Your task to perform on an android device: see tabs open on other devices in the chrome app Image 0: 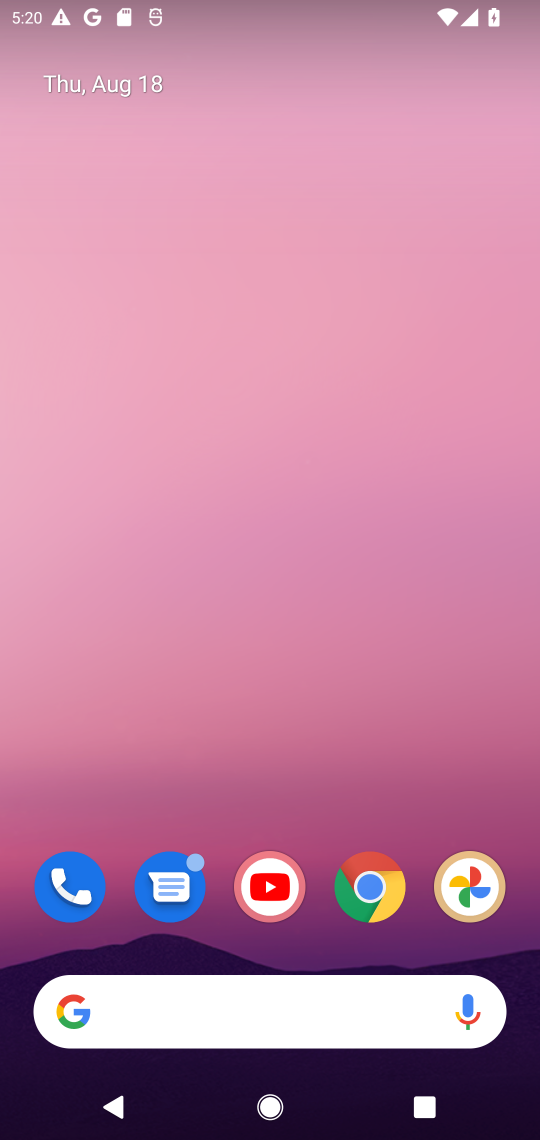
Step 0: drag from (330, 783) to (340, 130)
Your task to perform on an android device: see tabs open on other devices in the chrome app Image 1: 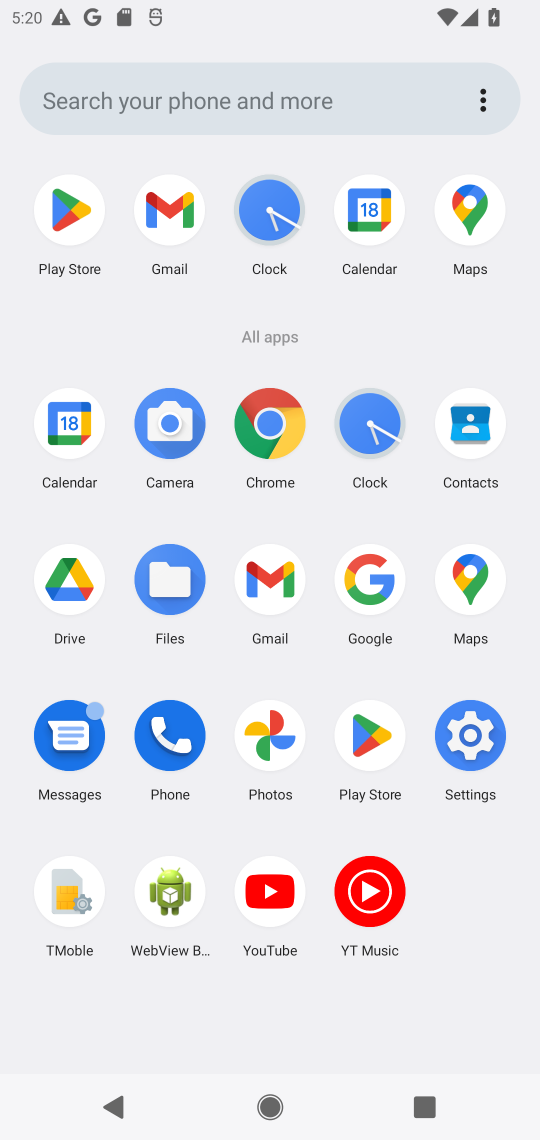
Step 1: click (271, 453)
Your task to perform on an android device: see tabs open on other devices in the chrome app Image 2: 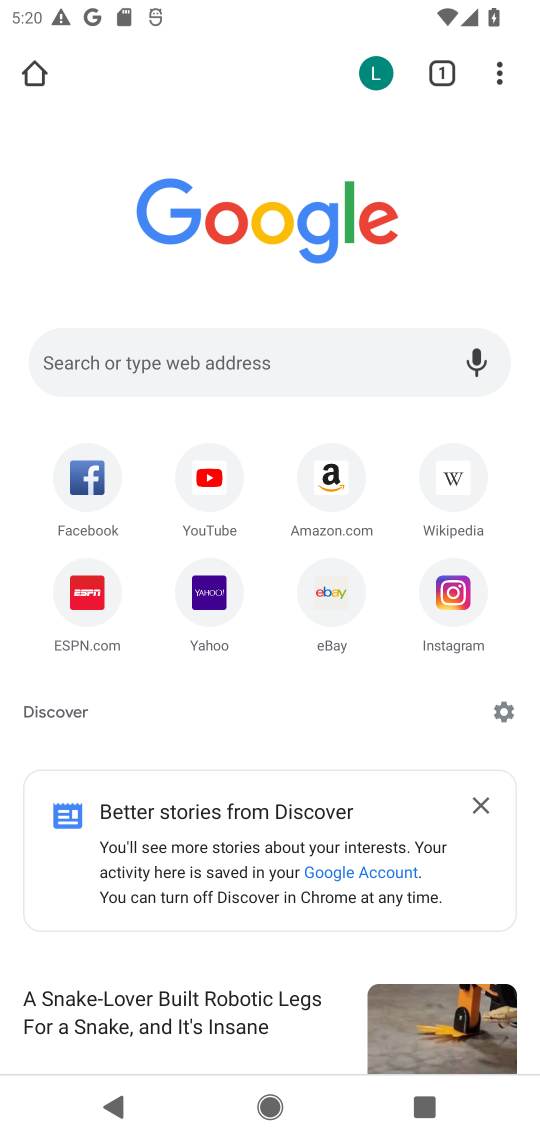
Step 2: task complete